Your task to perform on an android device: uninstall "Skype" Image 0: 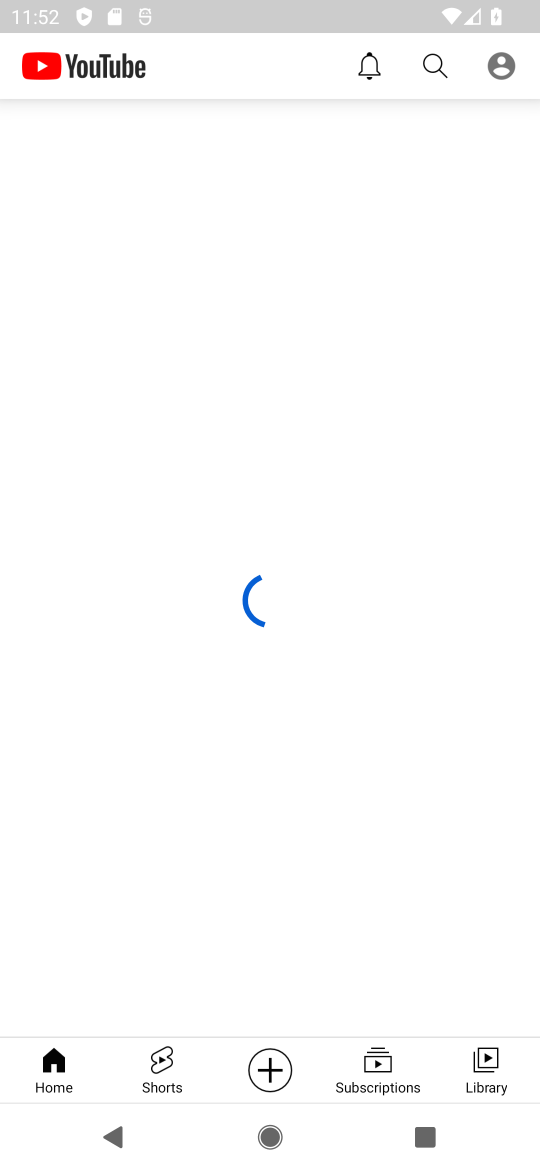
Step 0: press home button
Your task to perform on an android device: uninstall "Skype" Image 1: 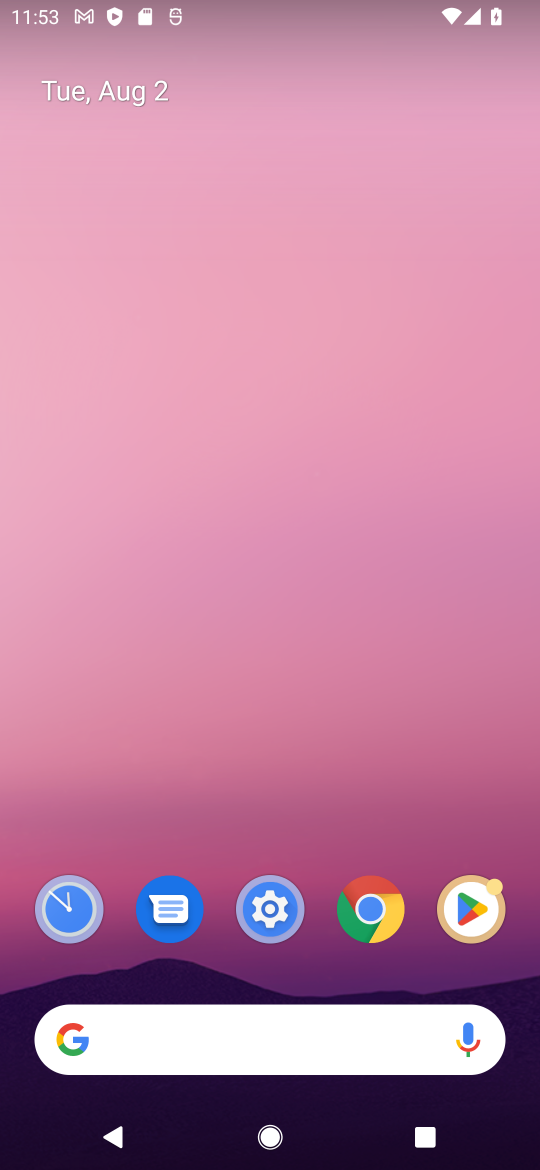
Step 1: click (457, 925)
Your task to perform on an android device: uninstall "Skype" Image 2: 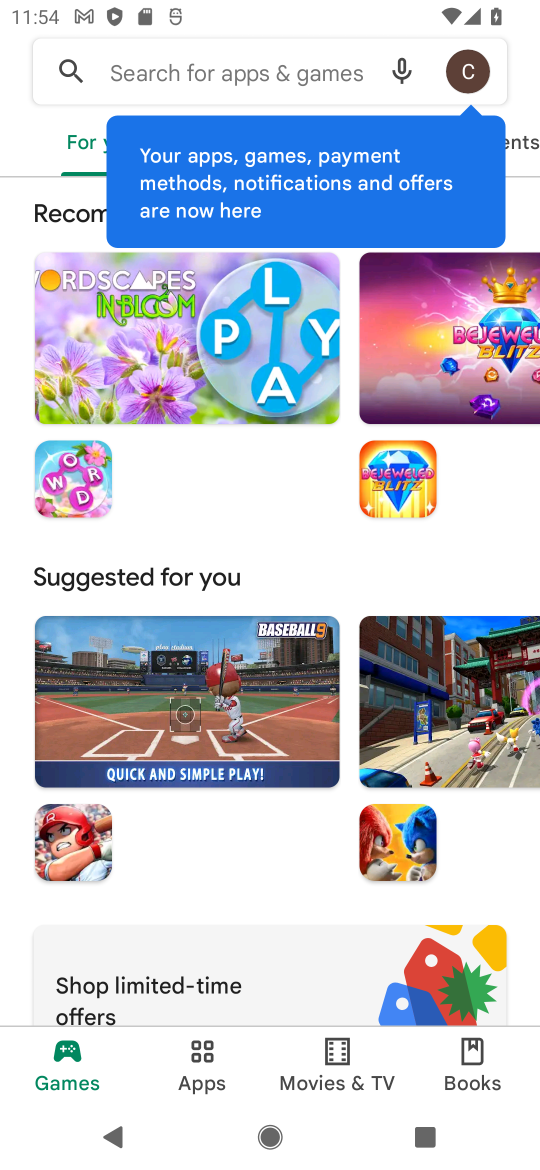
Step 2: click (167, 77)
Your task to perform on an android device: uninstall "Skype" Image 3: 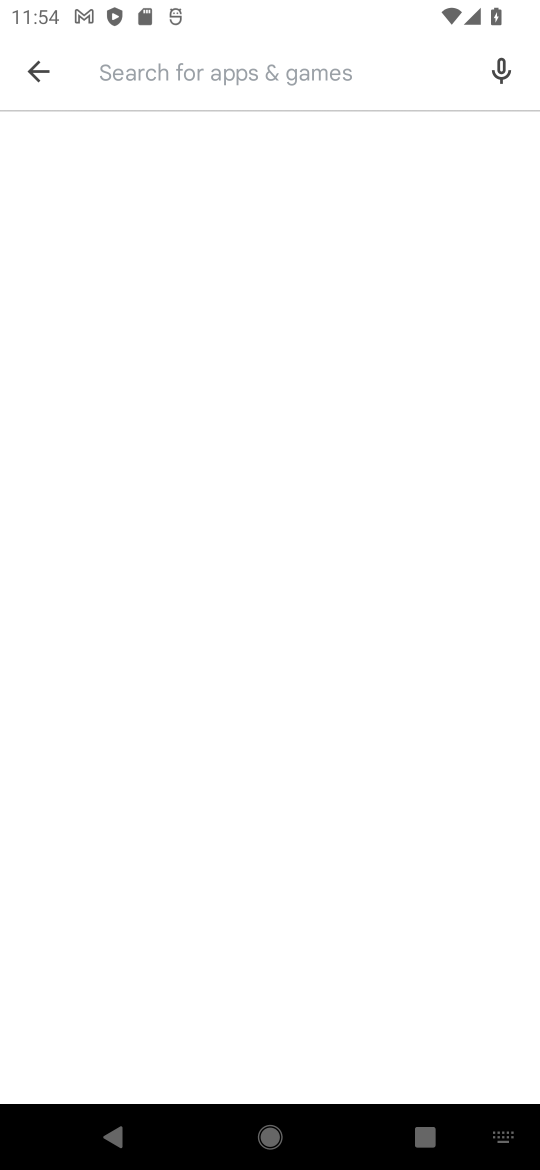
Step 3: type "Skype"
Your task to perform on an android device: uninstall "Skype" Image 4: 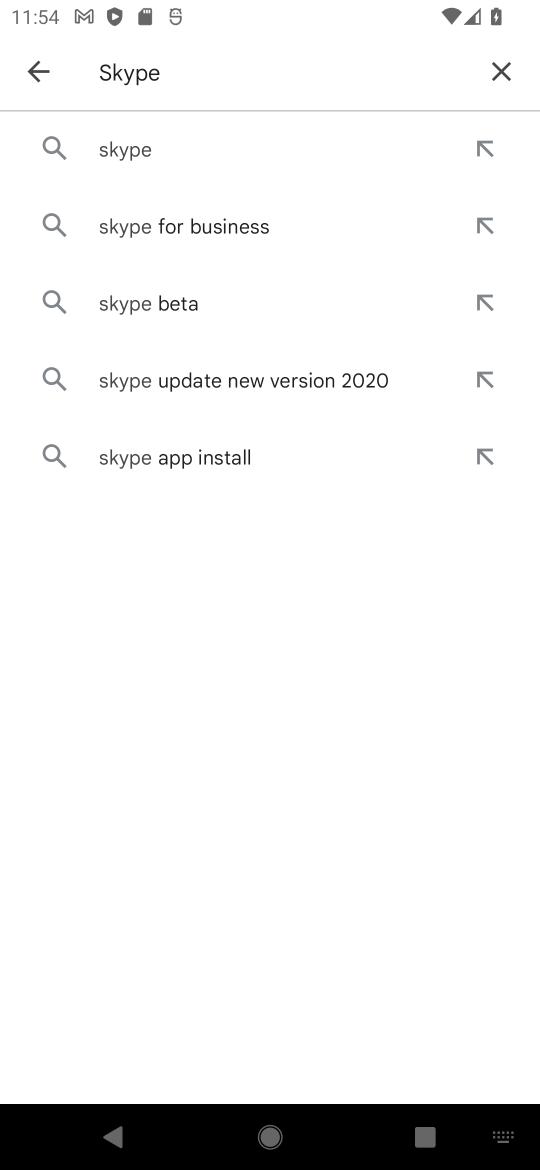
Step 4: click (154, 132)
Your task to perform on an android device: uninstall "Skype" Image 5: 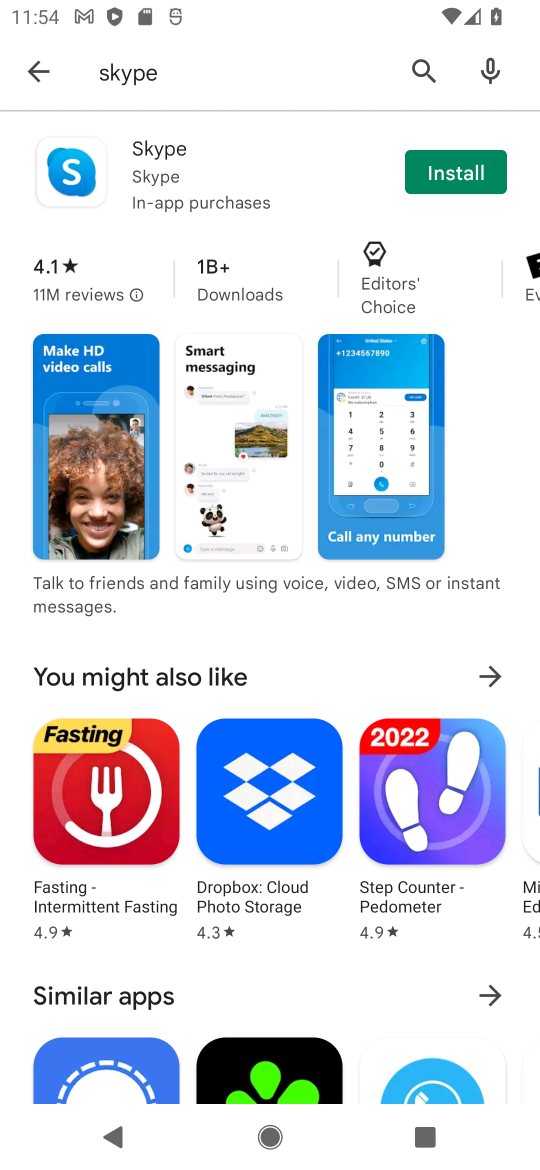
Step 5: click (154, 132)
Your task to perform on an android device: uninstall "Skype" Image 6: 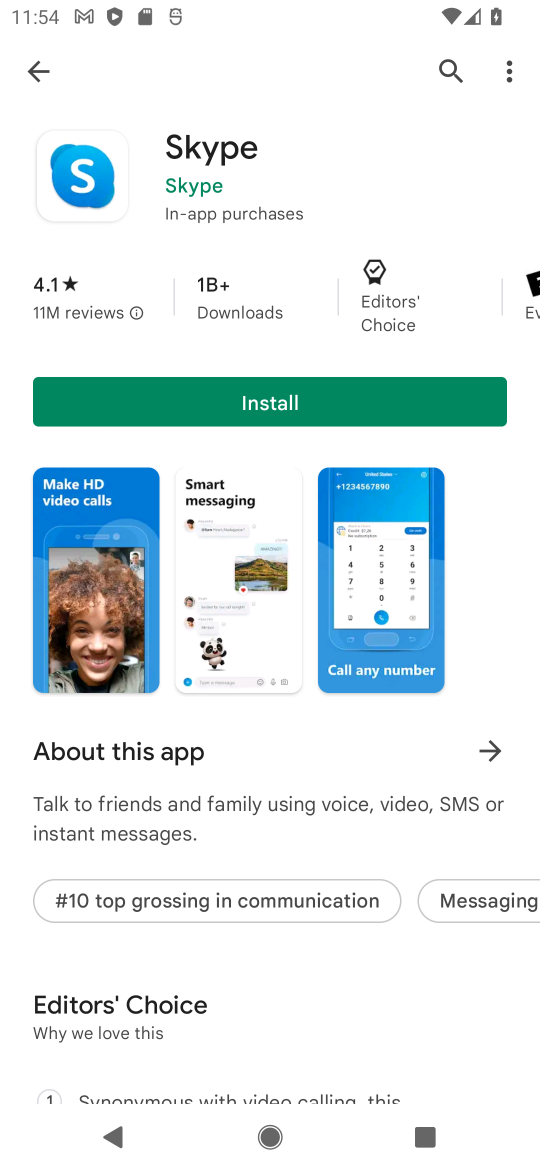
Step 6: task complete